Your task to perform on an android device: open wifi settings Image 0: 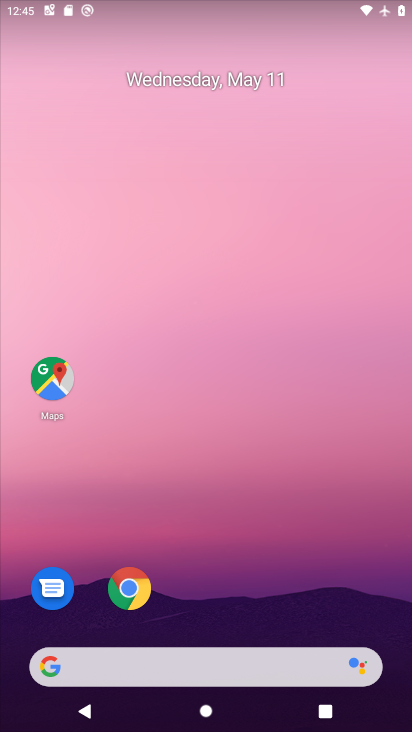
Step 0: drag from (210, 647) to (257, 254)
Your task to perform on an android device: open wifi settings Image 1: 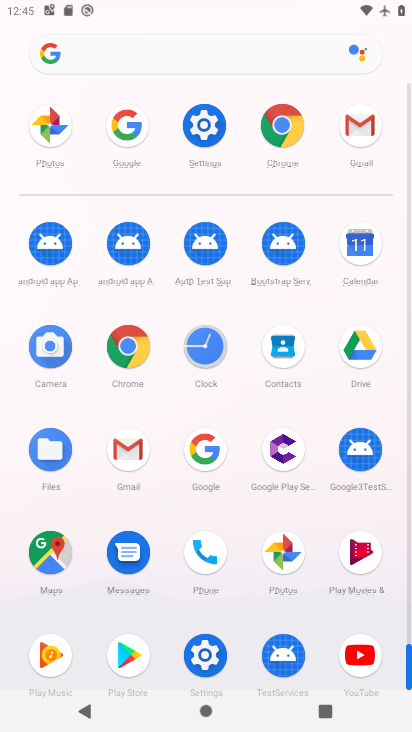
Step 1: click (208, 134)
Your task to perform on an android device: open wifi settings Image 2: 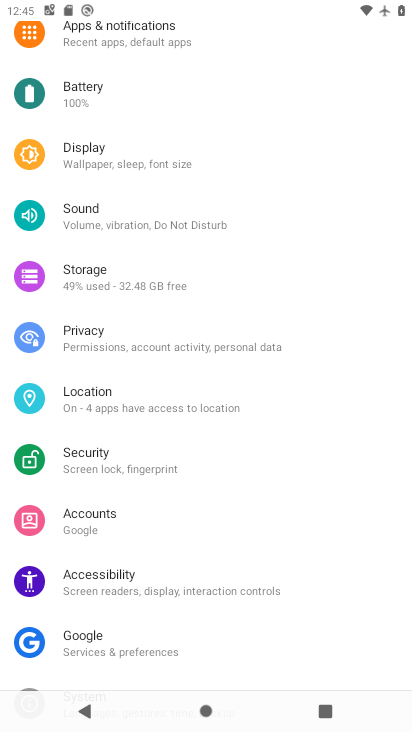
Step 2: drag from (249, 131) to (260, 547)
Your task to perform on an android device: open wifi settings Image 3: 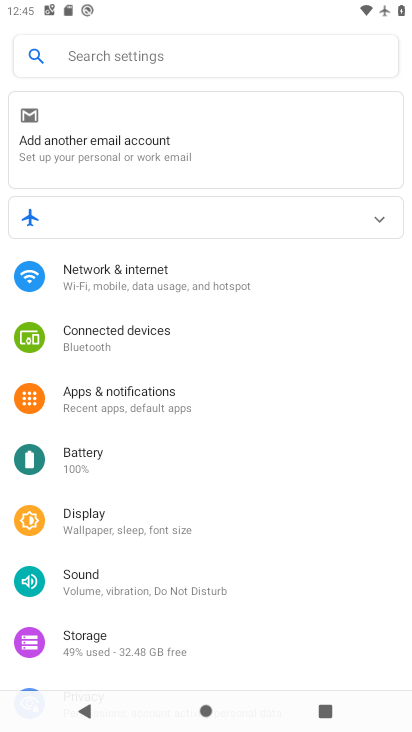
Step 3: click (180, 282)
Your task to perform on an android device: open wifi settings Image 4: 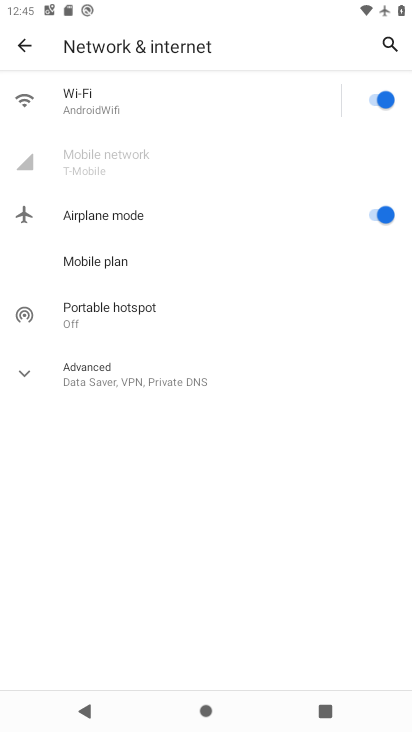
Step 4: click (140, 104)
Your task to perform on an android device: open wifi settings Image 5: 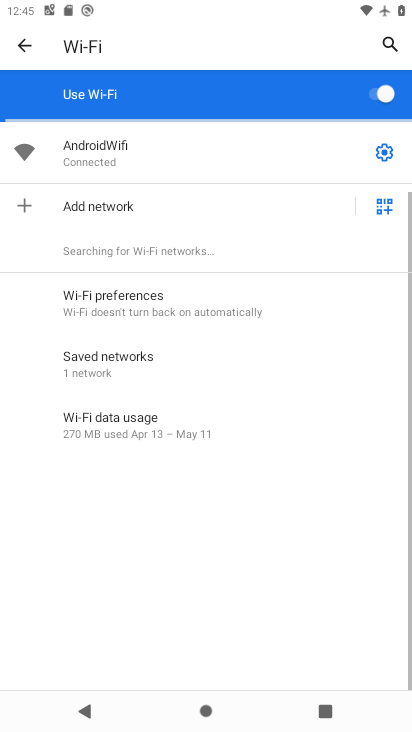
Step 5: click (383, 154)
Your task to perform on an android device: open wifi settings Image 6: 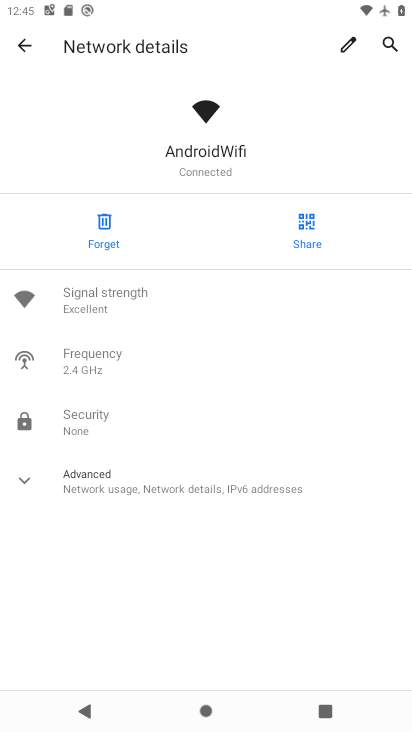
Step 6: click (172, 485)
Your task to perform on an android device: open wifi settings Image 7: 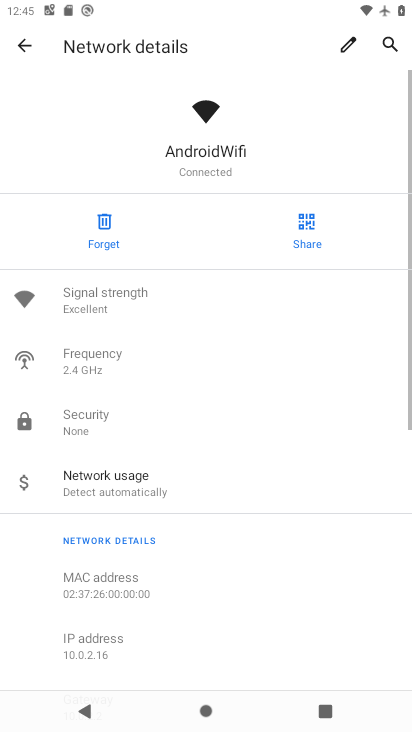
Step 7: task complete